Your task to perform on an android device: Go to Android settings Image 0: 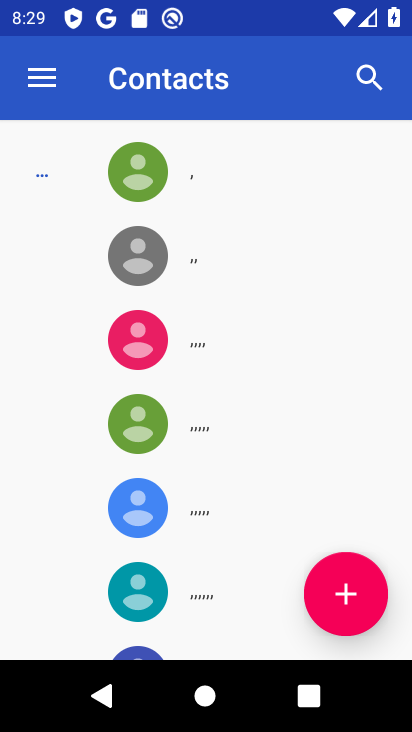
Step 0: press home button
Your task to perform on an android device: Go to Android settings Image 1: 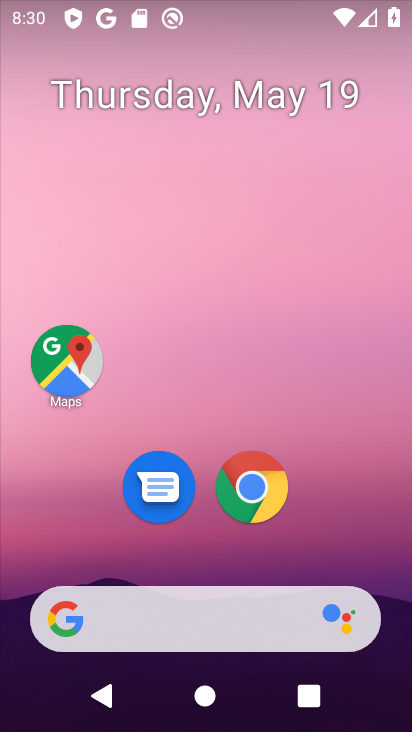
Step 1: drag from (207, 576) to (199, 19)
Your task to perform on an android device: Go to Android settings Image 2: 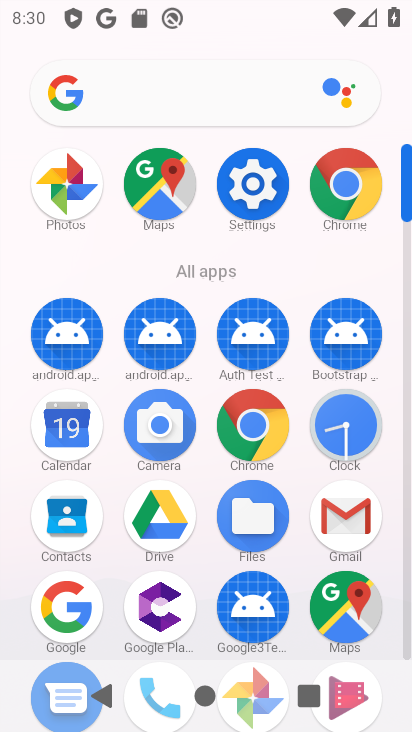
Step 2: click (247, 186)
Your task to perform on an android device: Go to Android settings Image 3: 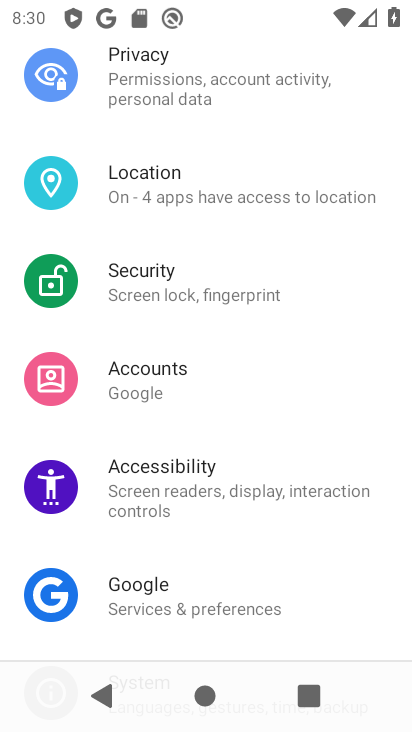
Step 3: task complete